Your task to perform on an android device: add a contact in the contacts app Image 0: 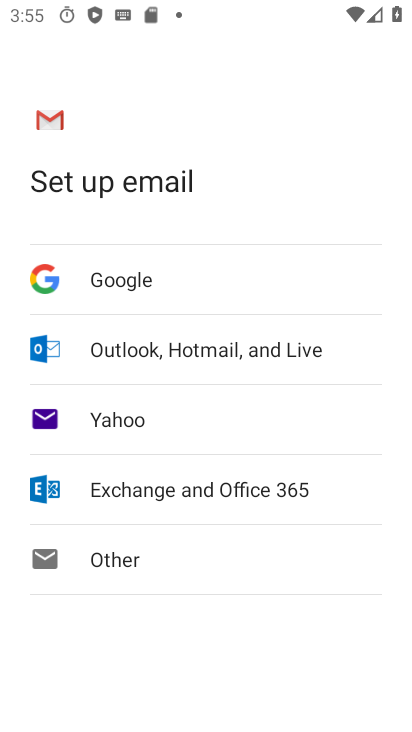
Step 0: press home button
Your task to perform on an android device: add a contact in the contacts app Image 1: 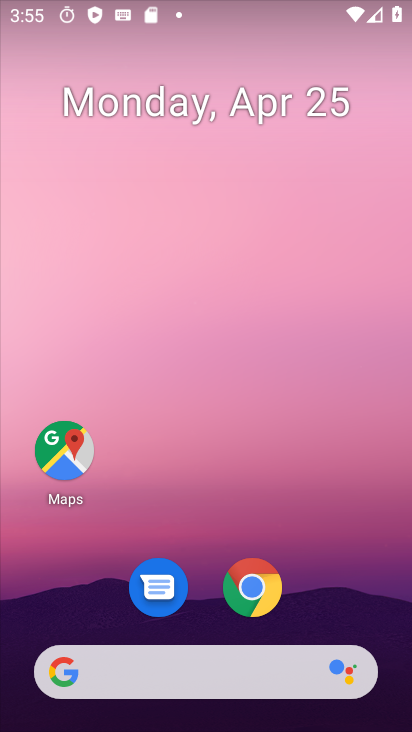
Step 1: click (262, 590)
Your task to perform on an android device: add a contact in the contacts app Image 2: 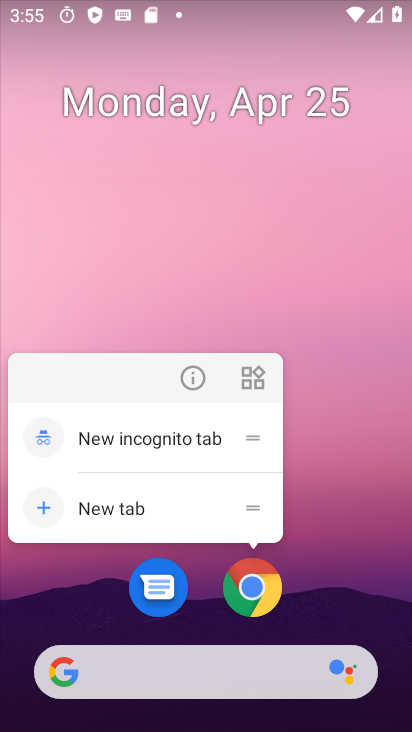
Step 2: click (246, 594)
Your task to perform on an android device: add a contact in the contacts app Image 3: 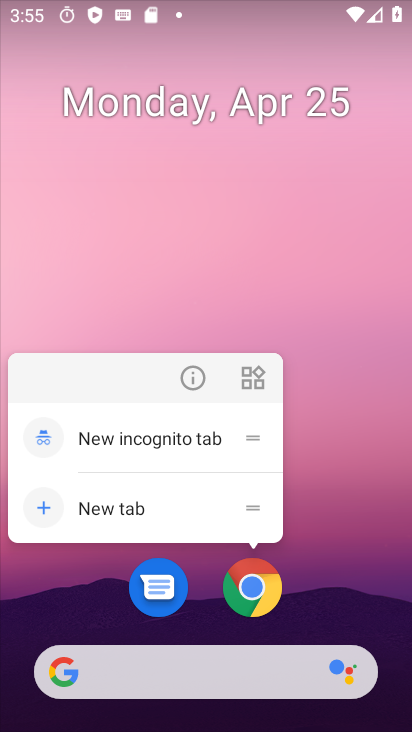
Step 3: drag from (333, 575) to (341, 88)
Your task to perform on an android device: add a contact in the contacts app Image 4: 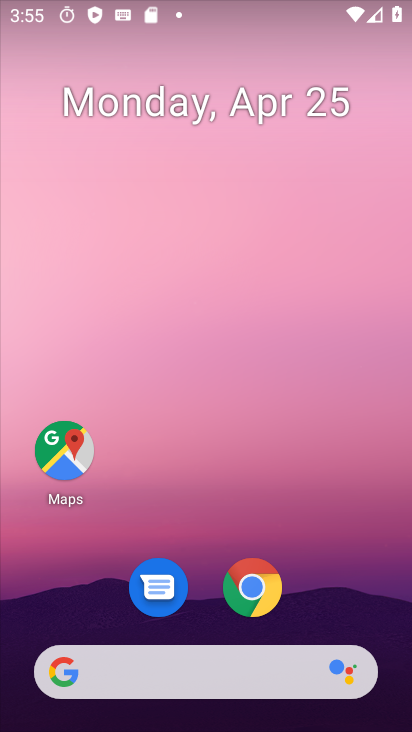
Step 4: drag from (330, 313) to (334, 89)
Your task to perform on an android device: add a contact in the contacts app Image 5: 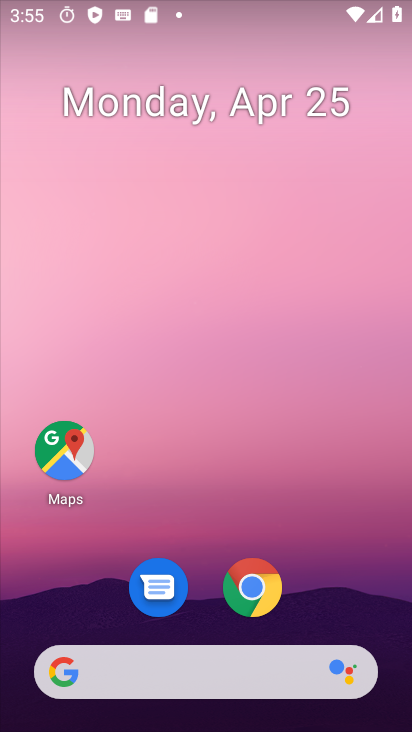
Step 5: drag from (309, 485) to (318, 22)
Your task to perform on an android device: add a contact in the contacts app Image 6: 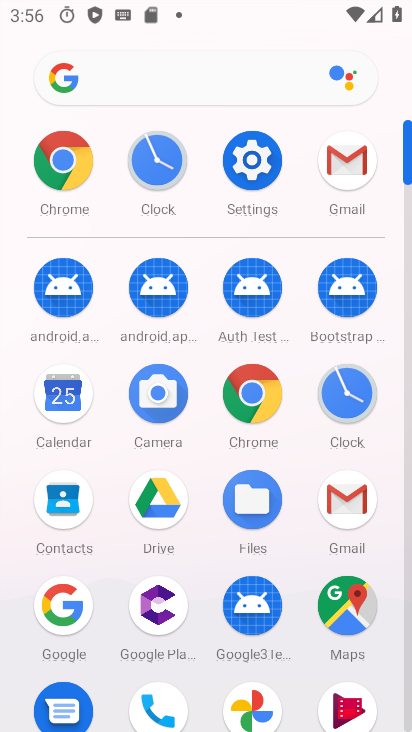
Step 6: click (64, 494)
Your task to perform on an android device: add a contact in the contacts app Image 7: 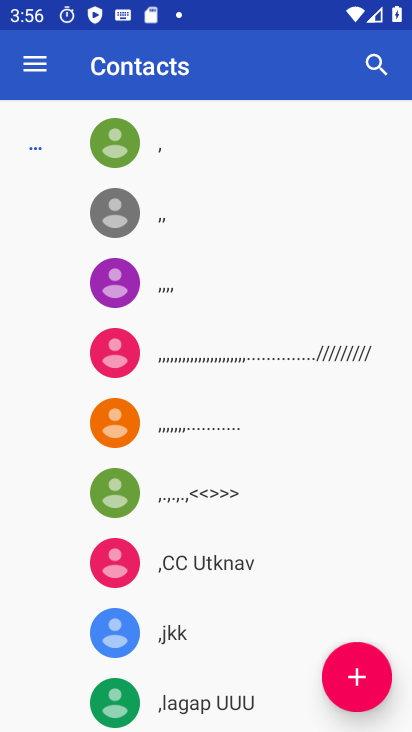
Step 7: click (349, 678)
Your task to perform on an android device: add a contact in the contacts app Image 8: 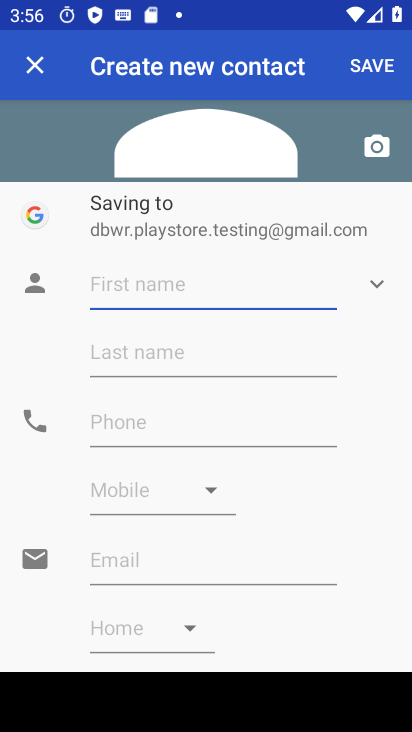
Step 8: click (187, 271)
Your task to perform on an android device: add a contact in the contacts app Image 9: 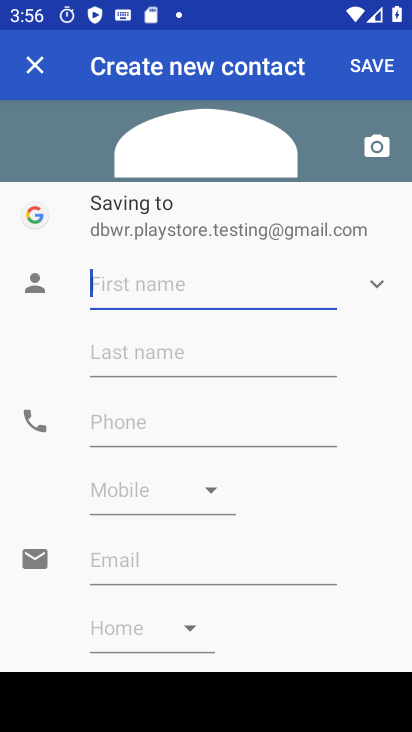
Step 9: type "ujnh"
Your task to perform on an android device: add a contact in the contacts app Image 10: 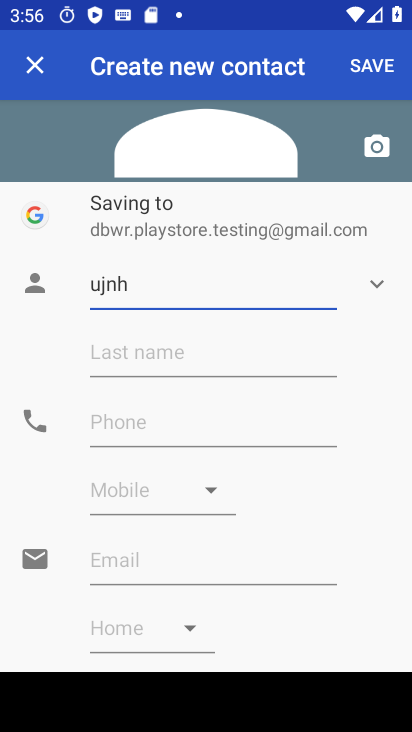
Step 10: click (346, 54)
Your task to perform on an android device: add a contact in the contacts app Image 11: 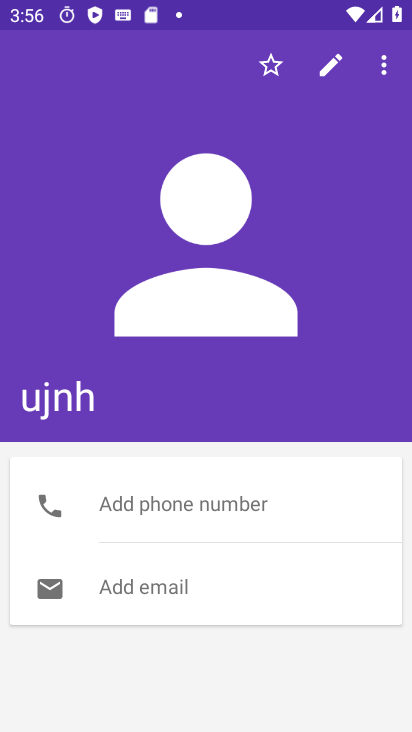
Step 11: task complete